Your task to perform on an android device: open app "Facebook Lite" Image 0: 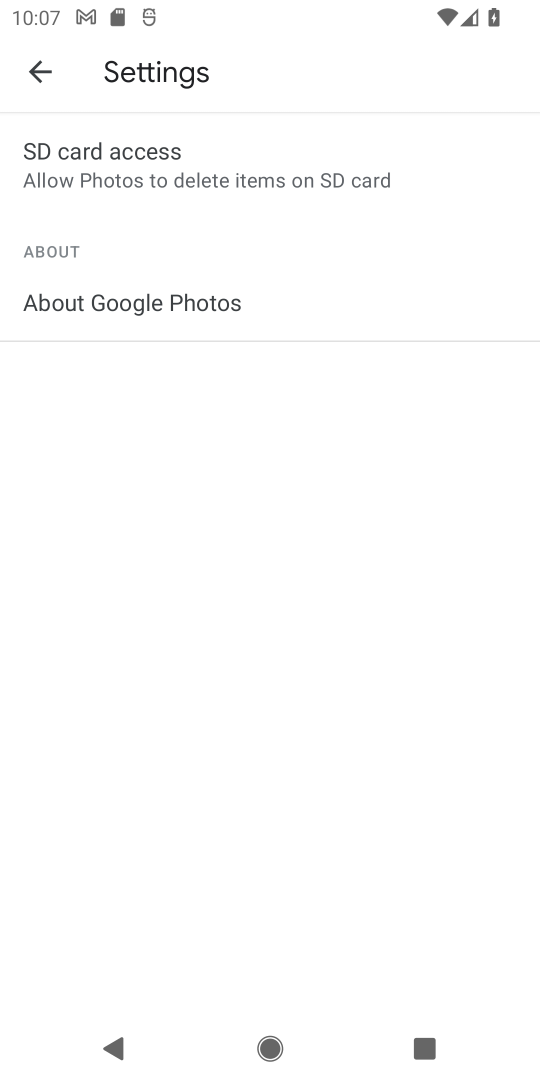
Step 0: press back button
Your task to perform on an android device: open app "Facebook Lite" Image 1: 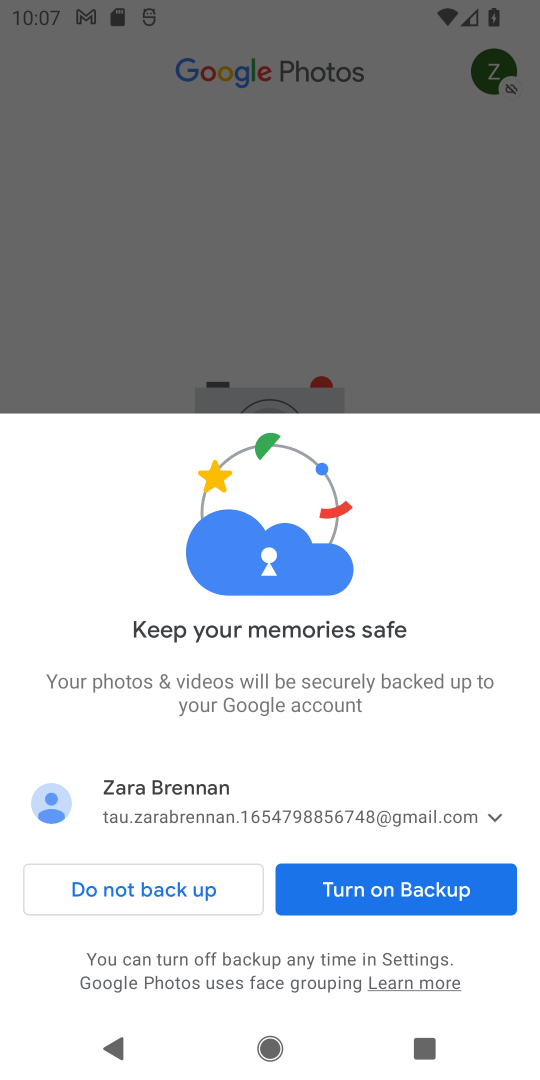
Step 1: press back button
Your task to perform on an android device: open app "Facebook Lite" Image 2: 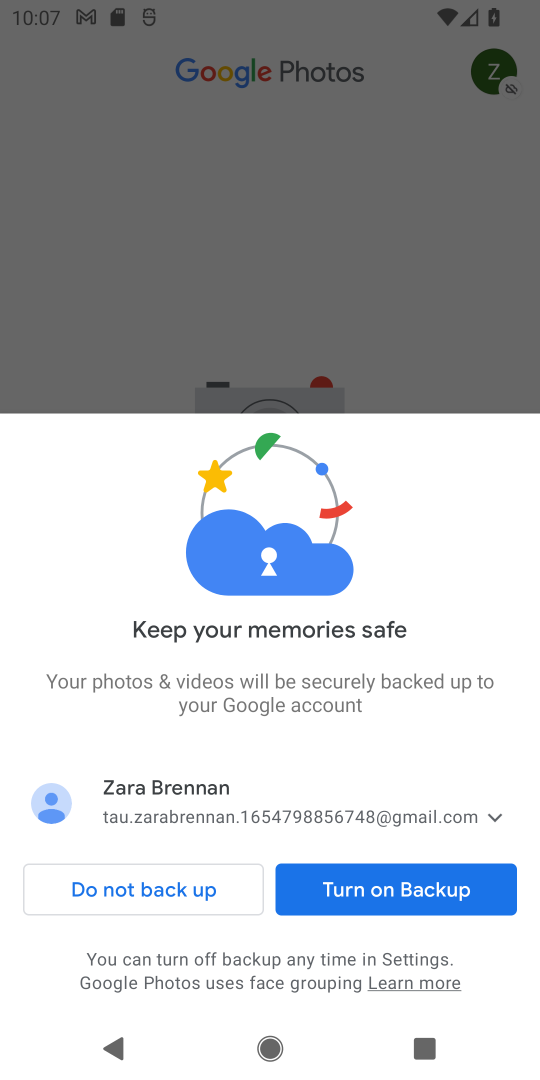
Step 2: press home button
Your task to perform on an android device: open app "Facebook Lite" Image 3: 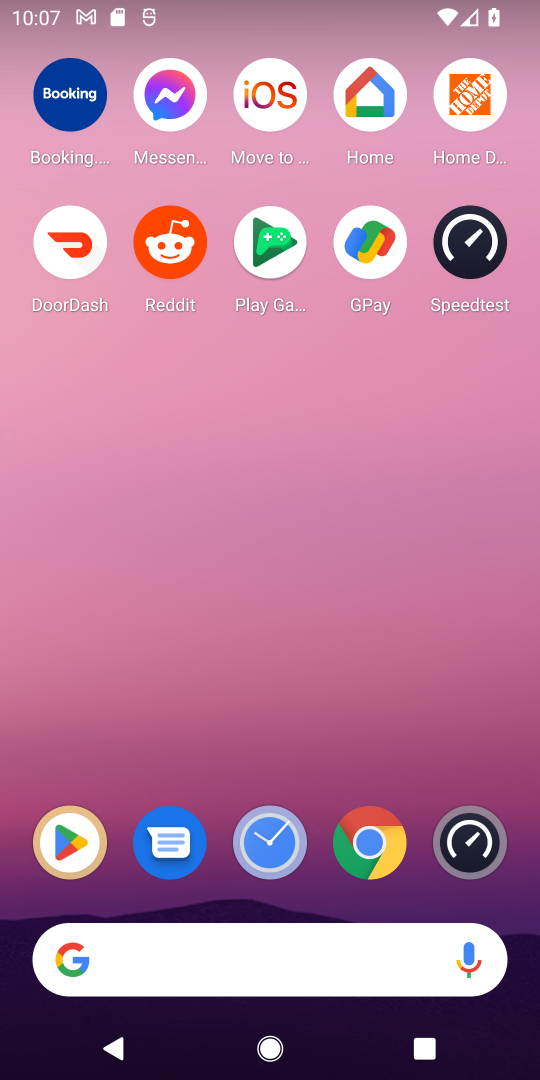
Step 3: click (76, 831)
Your task to perform on an android device: open app "Facebook Lite" Image 4: 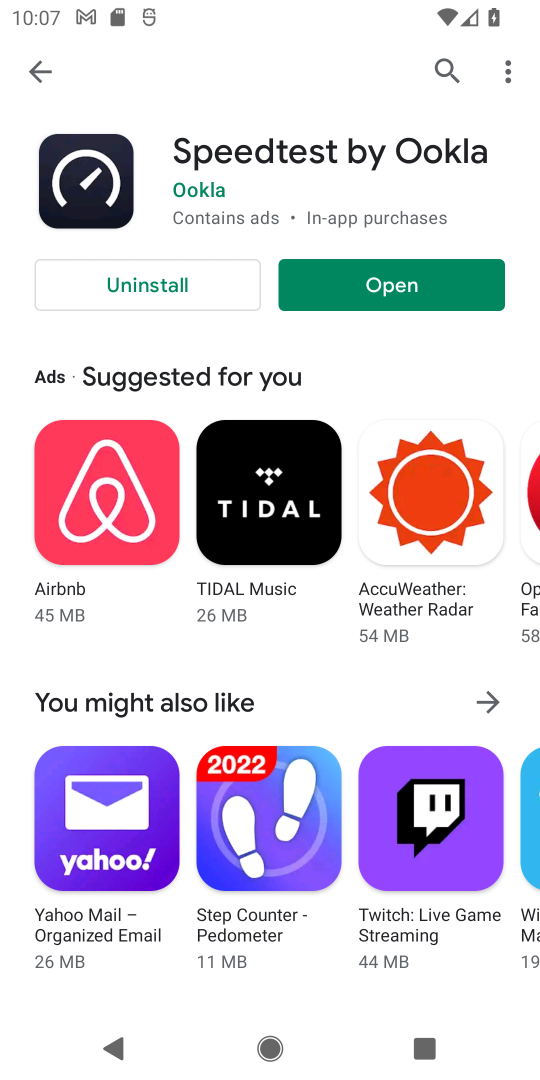
Step 4: click (434, 50)
Your task to perform on an android device: open app "Facebook Lite" Image 5: 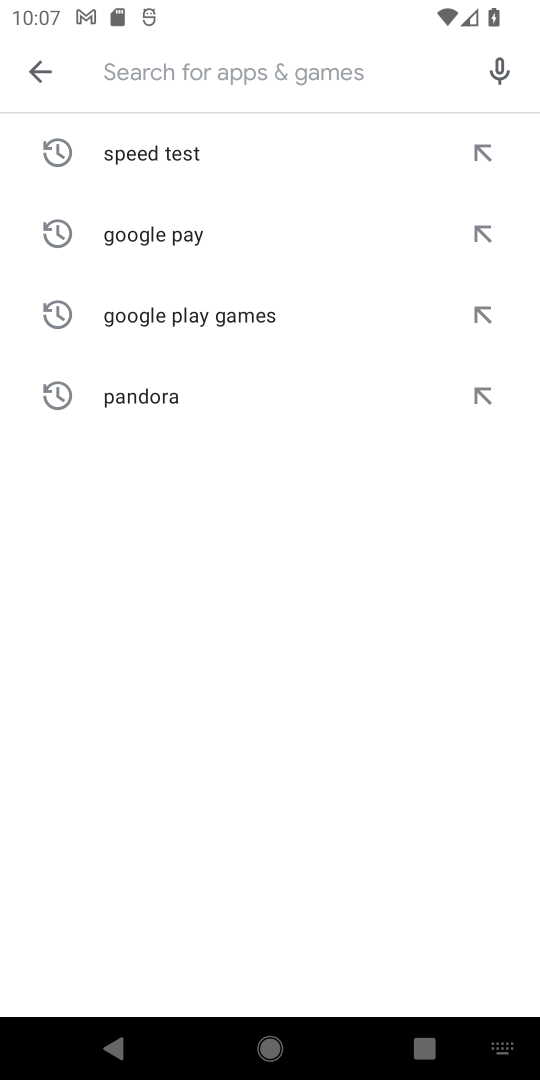
Step 5: click (200, 70)
Your task to perform on an android device: open app "Facebook Lite" Image 6: 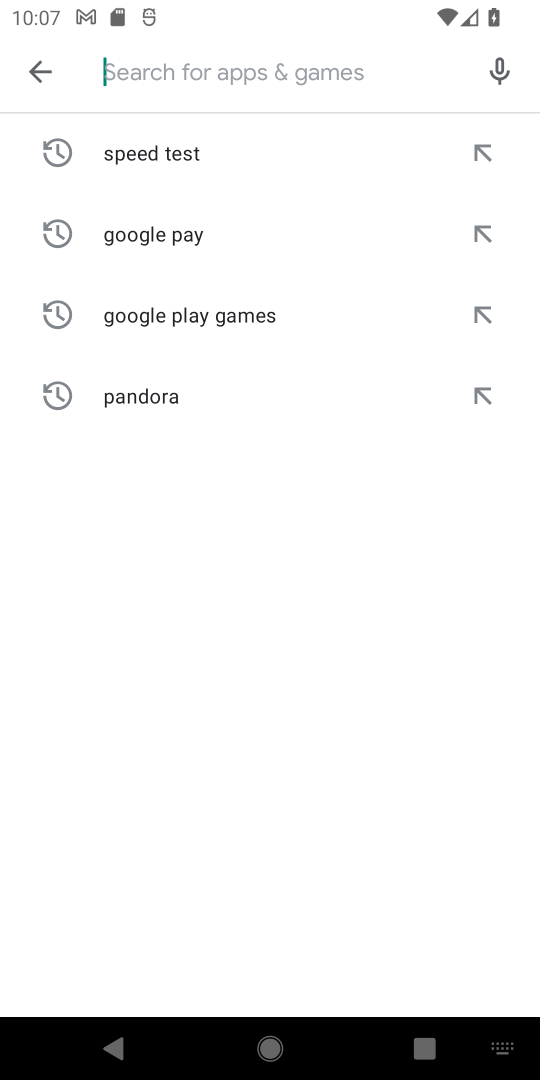
Step 6: type "Facebook Lite"
Your task to perform on an android device: open app "Facebook Lite" Image 7: 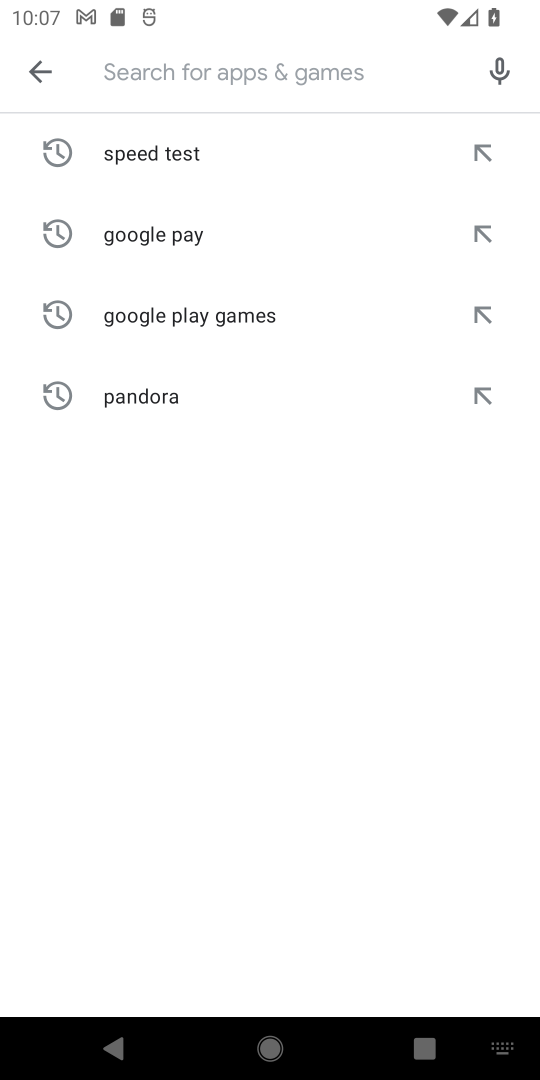
Step 7: click (269, 544)
Your task to perform on an android device: open app "Facebook Lite" Image 8: 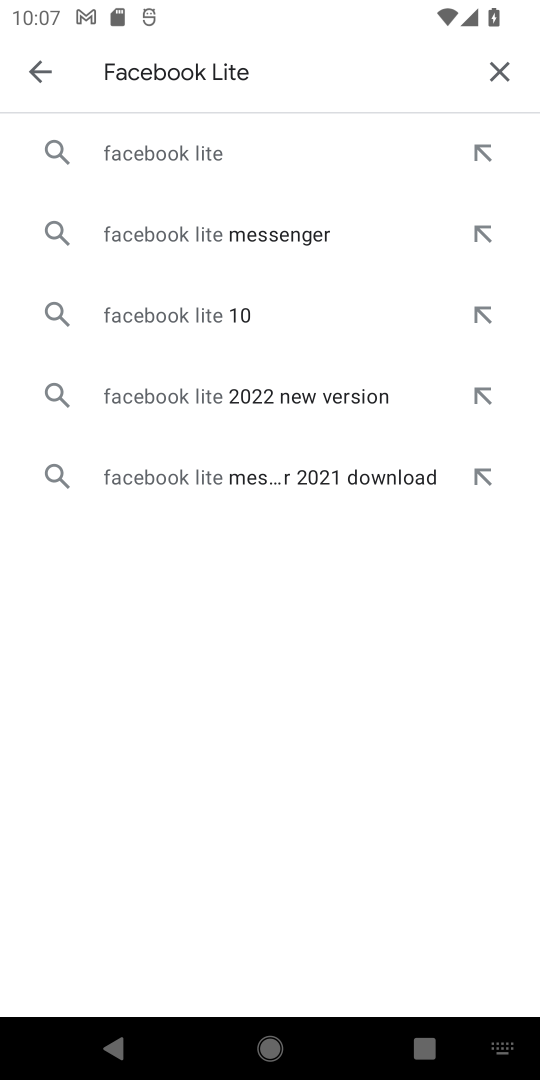
Step 8: click (215, 154)
Your task to perform on an android device: open app "Facebook Lite" Image 9: 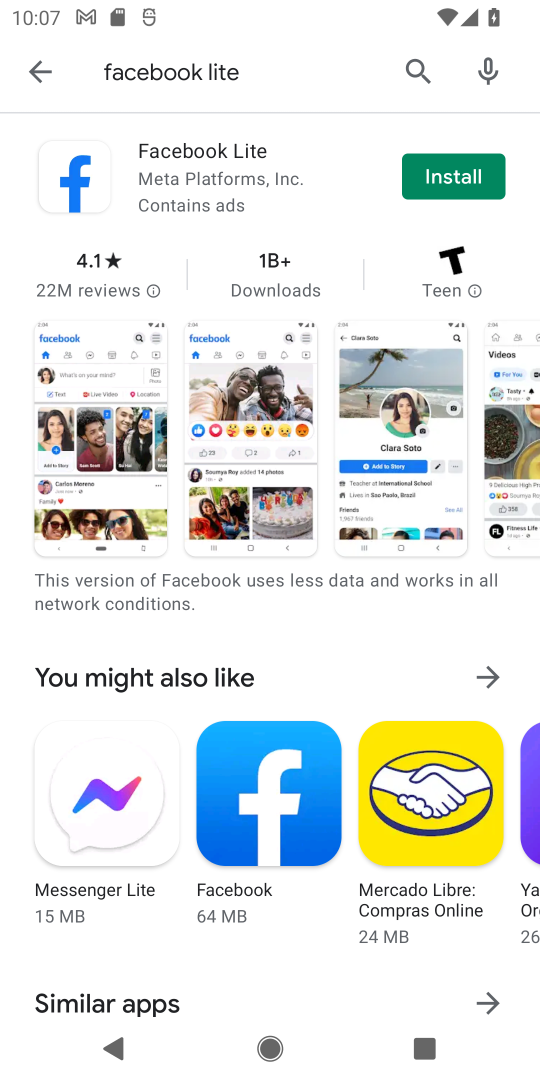
Step 9: task complete